Your task to perform on an android device: What's on my calendar today? Image 0: 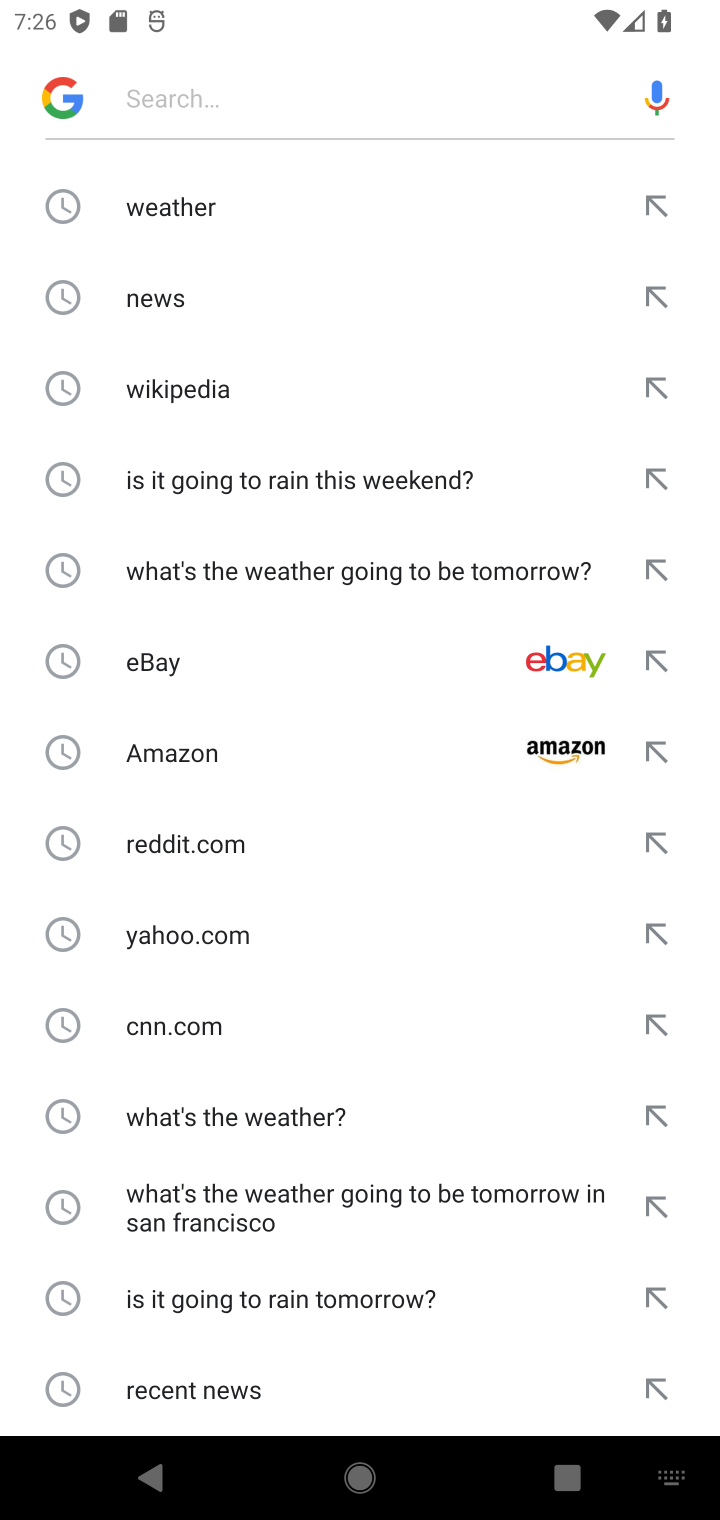
Step 0: press home button
Your task to perform on an android device: What's on my calendar today? Image 1: 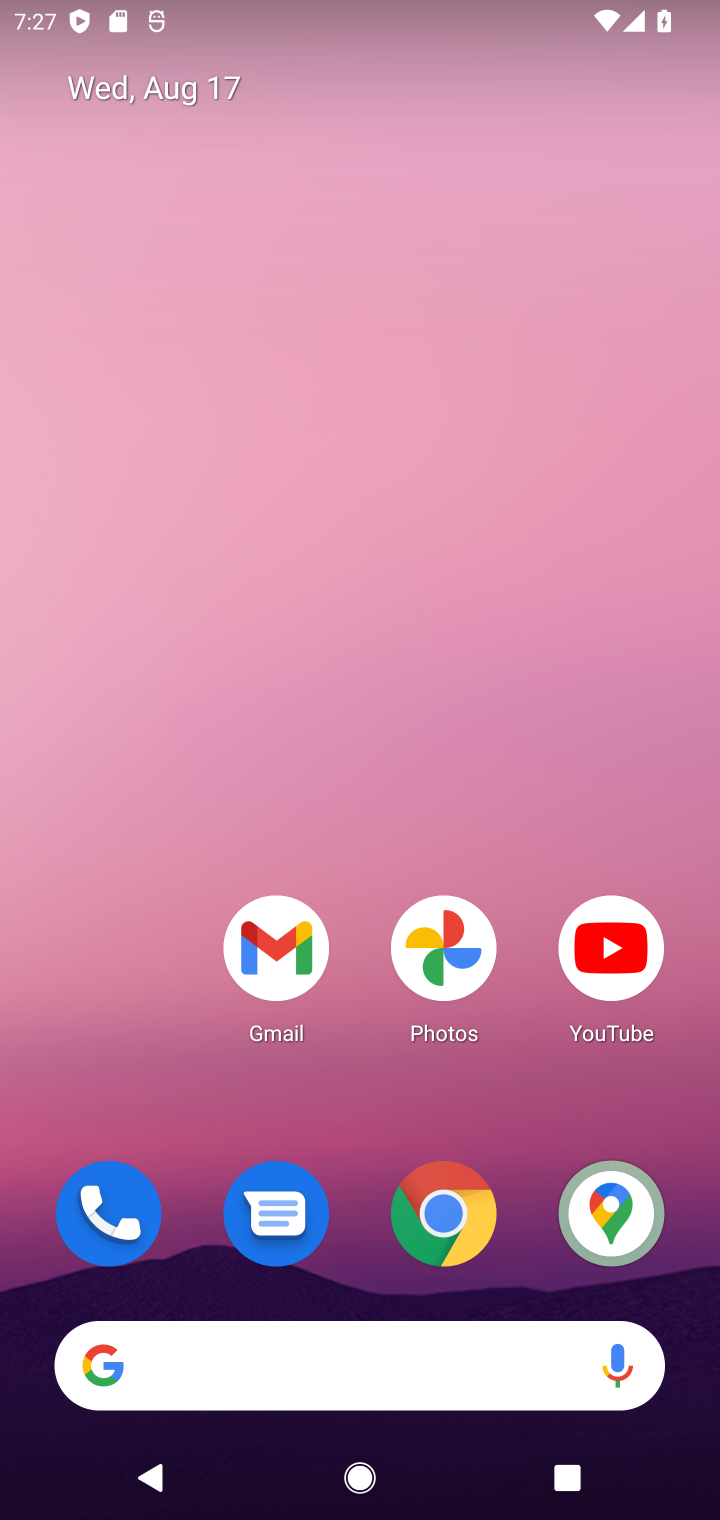
Step 1: drag from (341, 1304) to (296, 1)
Your task to perform on an android device: What's on my calendar today? Image 2: 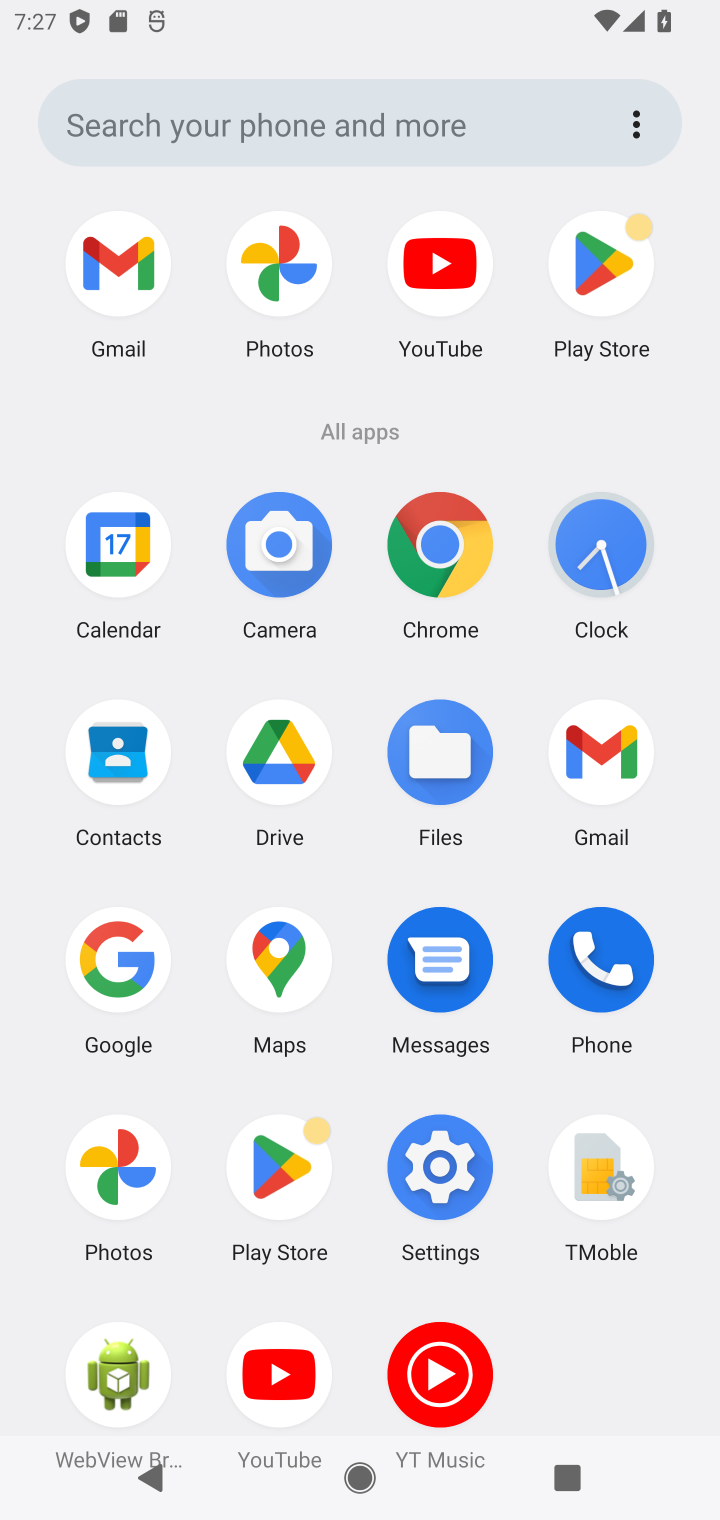
Step 2: click (134, 555)
Your task to perform on an android device: What's on my calendar today? Image 3: 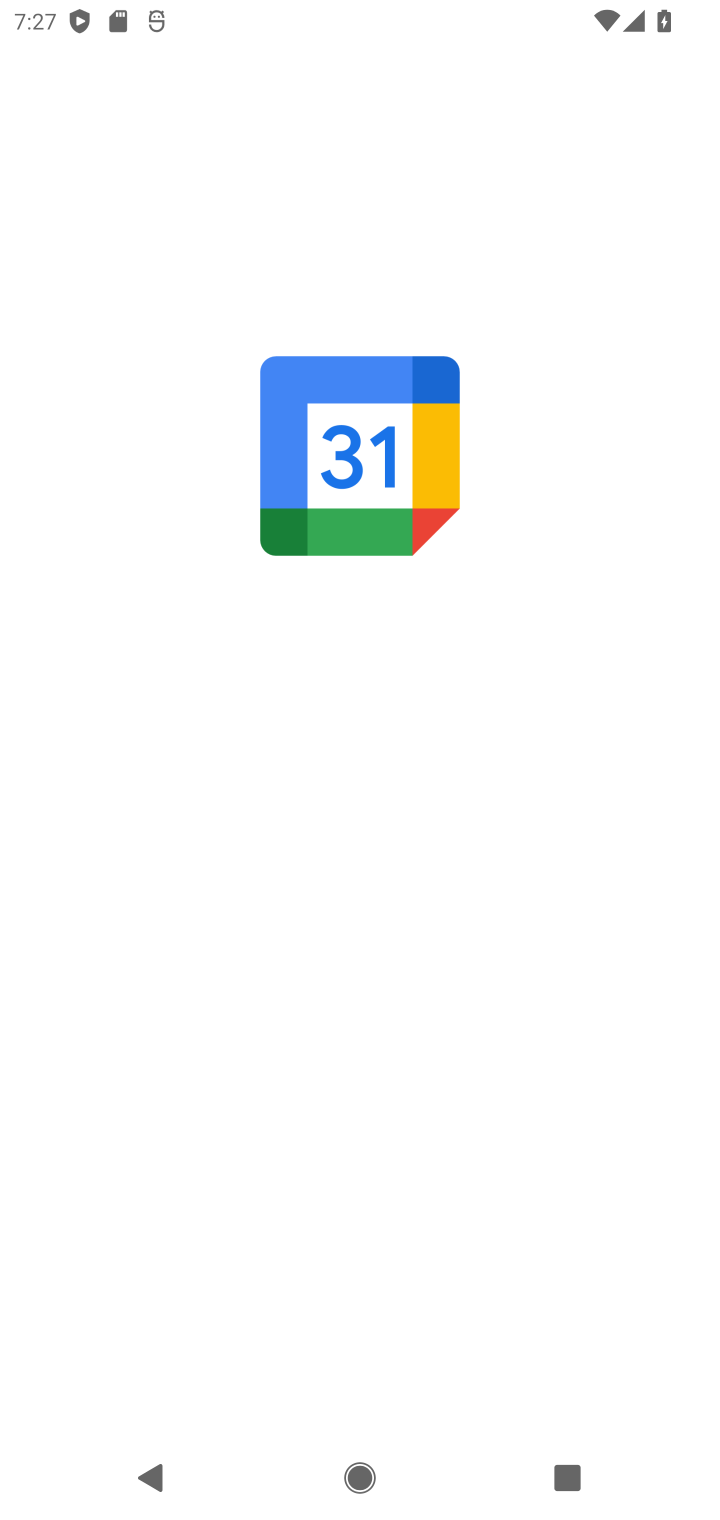
Step 3: task complete